Your task to perform on an android device: change the clock display to show seconds Image 0: 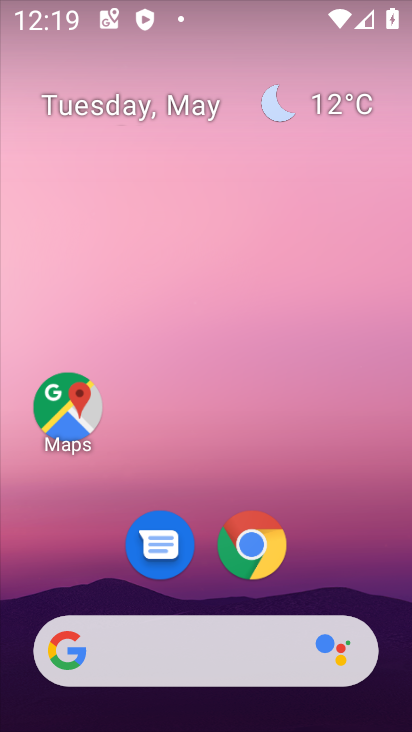
Step 0: drag from (341, 567) to (300, 62)
Your task to perform on an android device: change the clock display to show seconds Image 1: 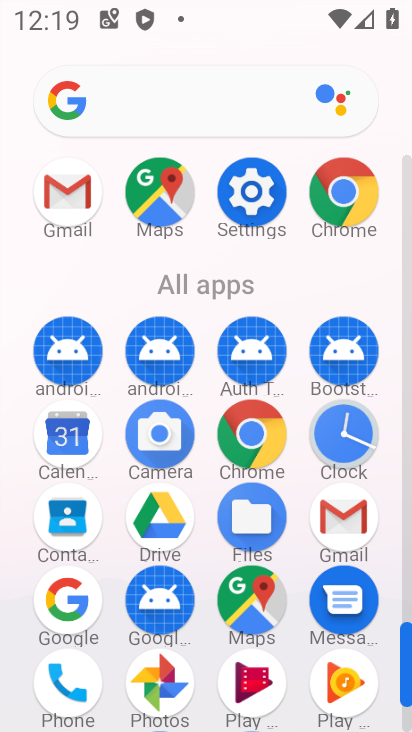
Step 1: click (353, 438)
Your task to perform on an android device: change the clock display to show seconds Image 2: 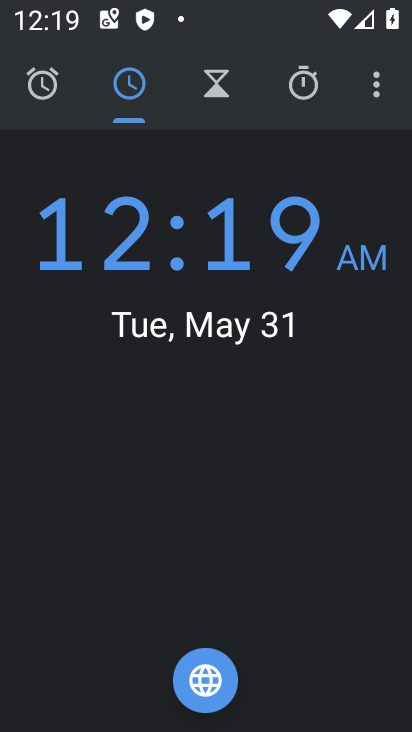
Step 2: click (380, 92)
Your task to perform on an android device: change the clock display to show seconds Image 3: 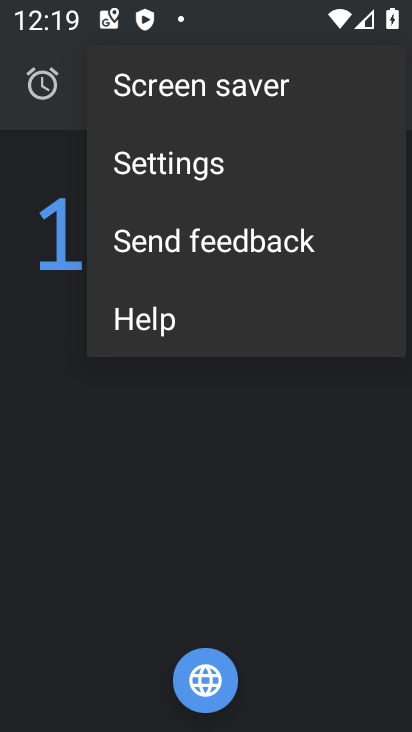
Step 3: click (230, 162)
Your task to perform on an android device: change the clock display to show seconds Image 4: 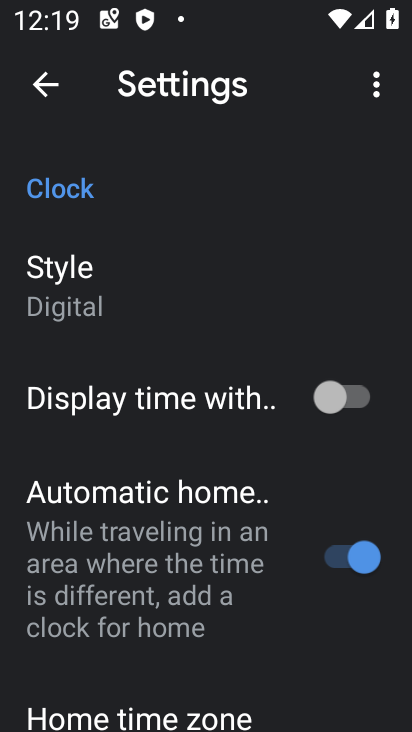
Step 4: click (332, 408)
Your task to perform on an android device: change the clock display to show seconds Image 5: 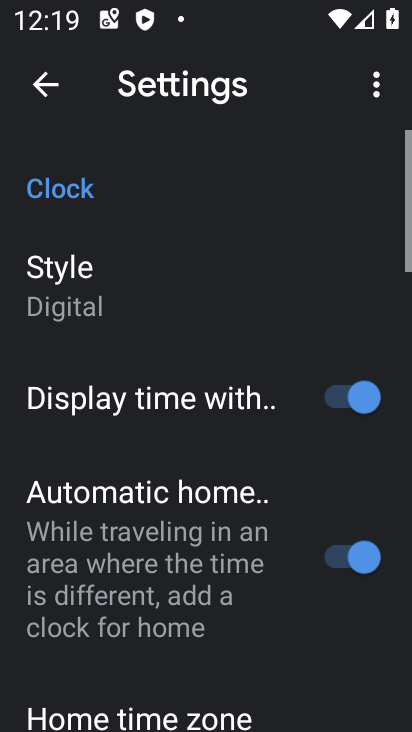
Step 5: task complete